Your task to perform on an android device: turn off priority inbox in the gmail app Image 0: 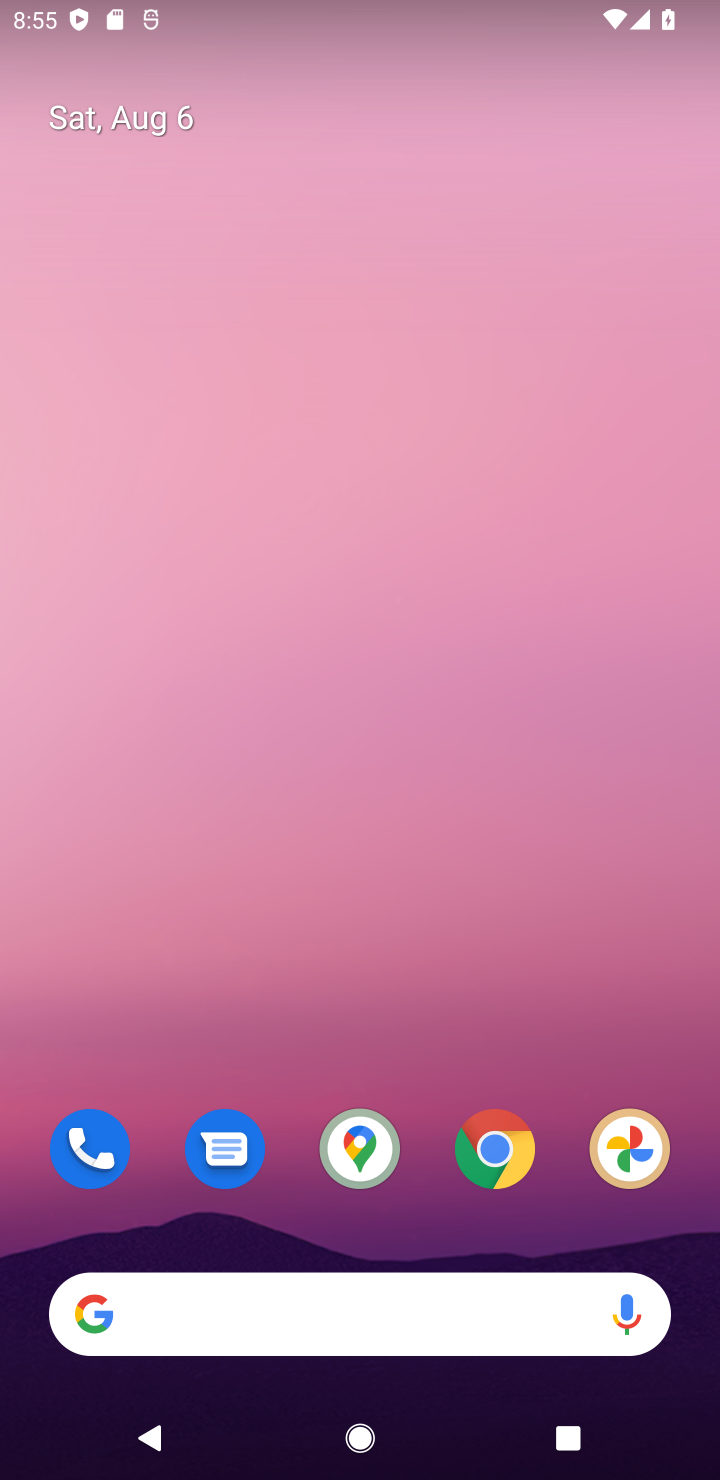
Step 0: drag from (378, 1302) to (263, 78)
Your task to perform on an android device: turn off priority inbox in the gmail app Image 1: 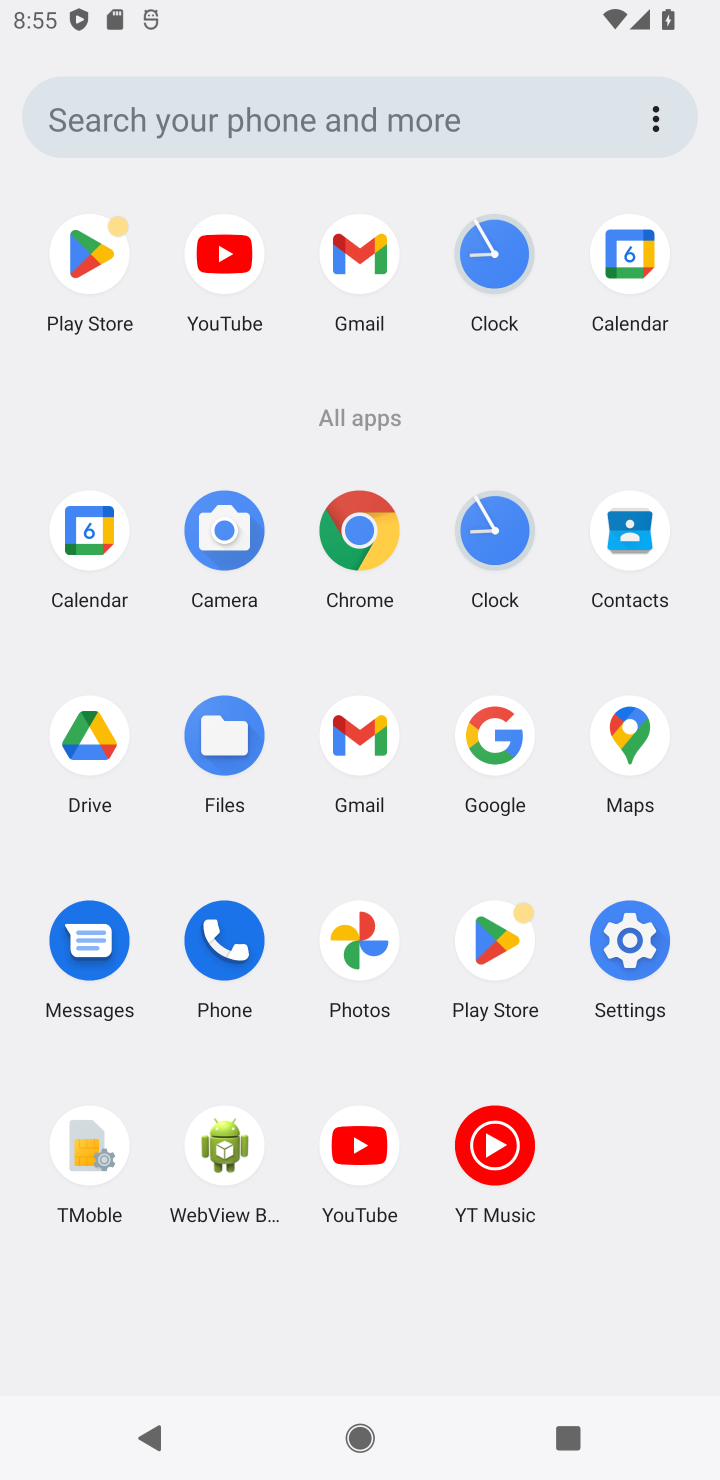
Step 1: click (369, 761)
Your task to perform on an android device: turn off priority inbox in the gmail app Image 2: 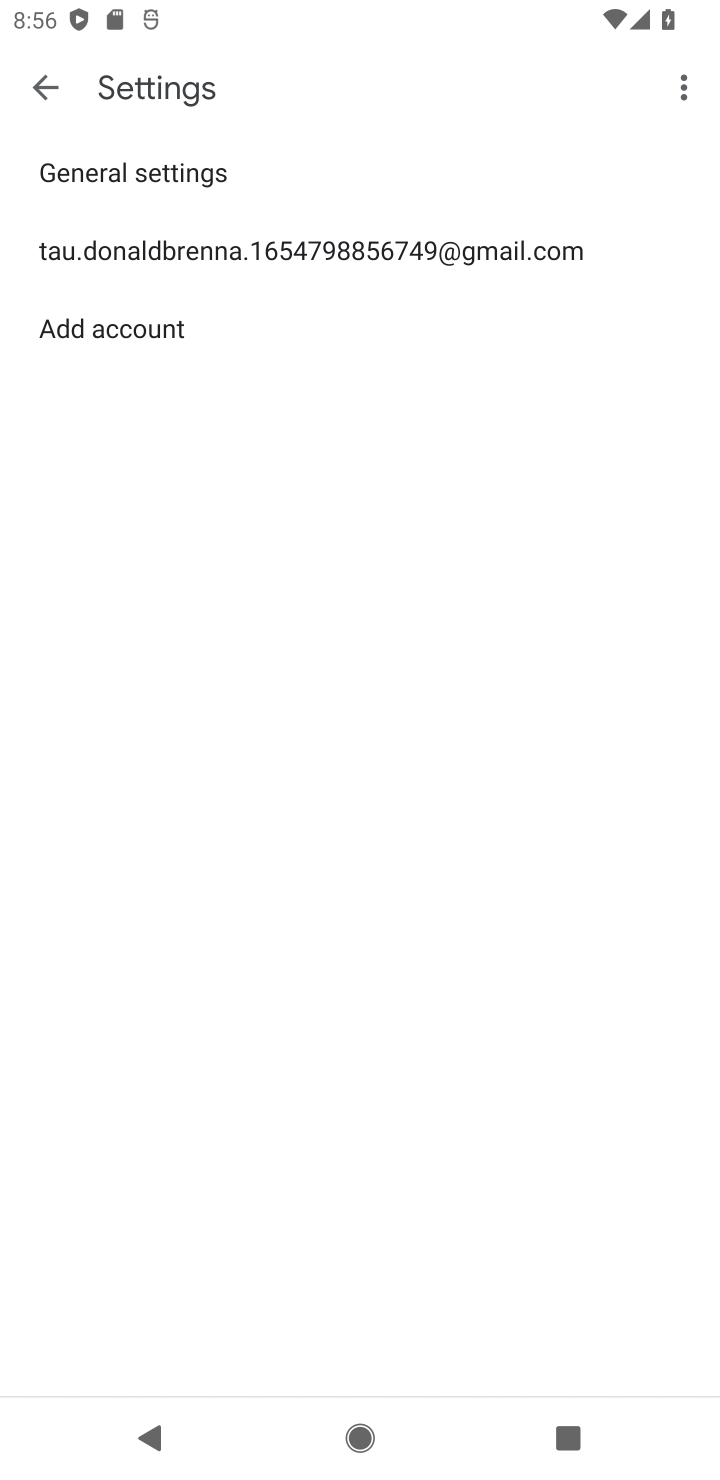
Step 2: click (418, 245)
Your task to perform on an android device: turn off priority inbox in the gmail app Image 3: 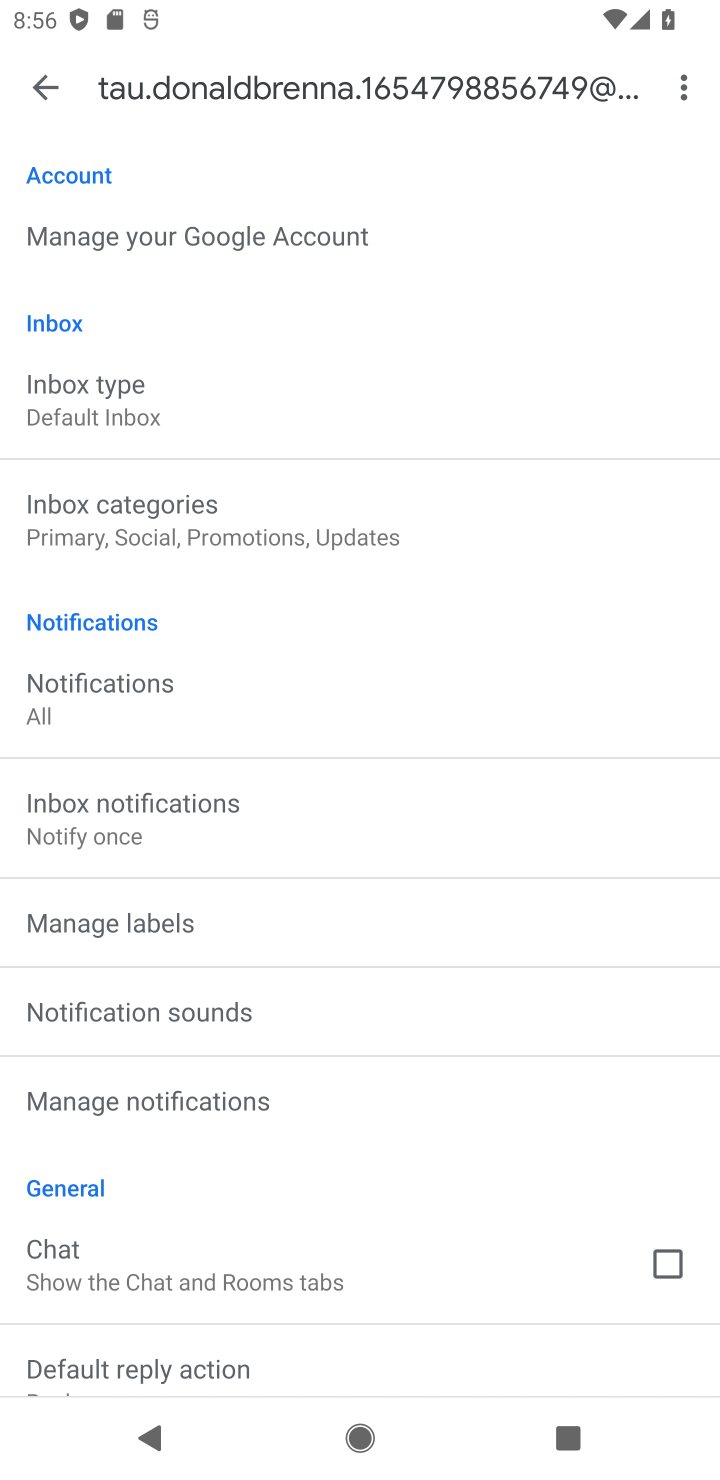
Step 3: click (151, 418)
Your task to perform on an android device: turn off priority inbox in the gmail app Image 4: 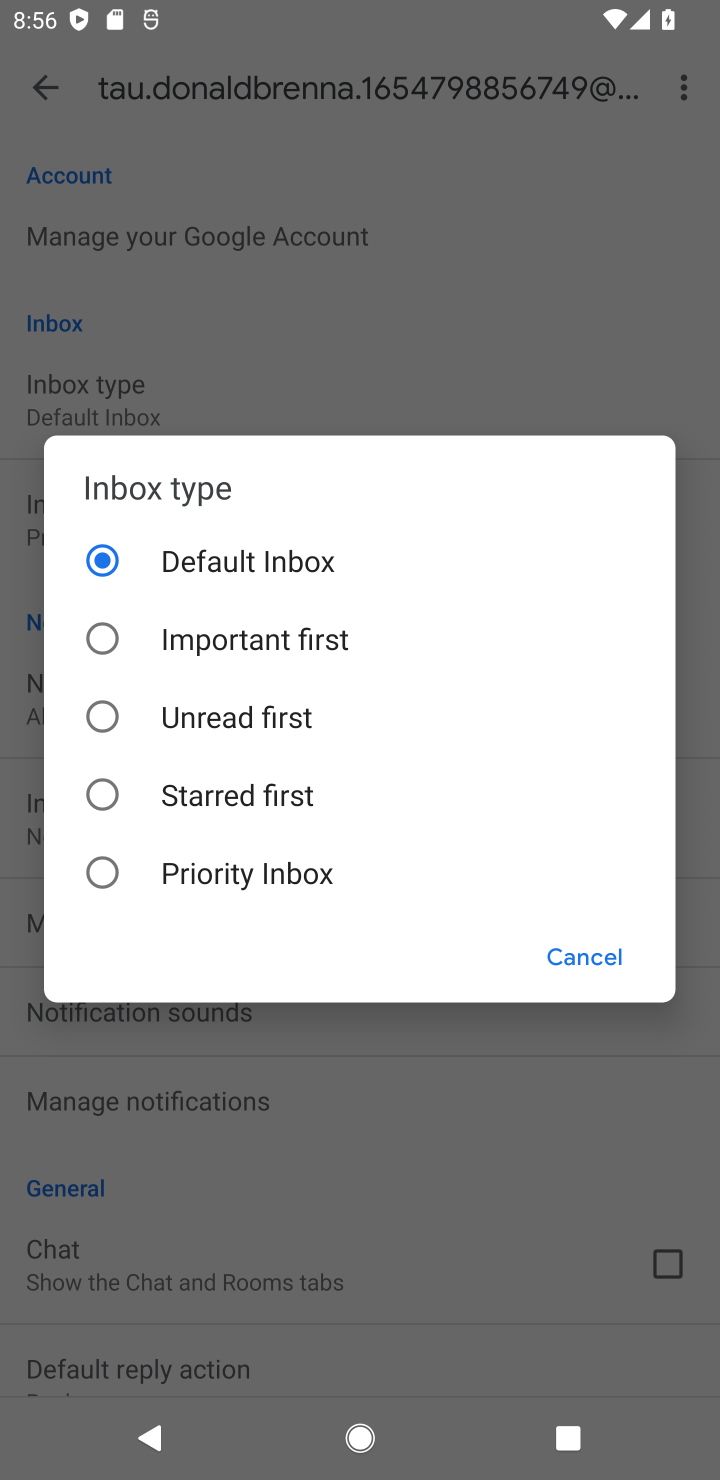
Step 4: click (238, 551)
Your task to perform on an android device: turn off priority inbox in the gmail app Image 5: 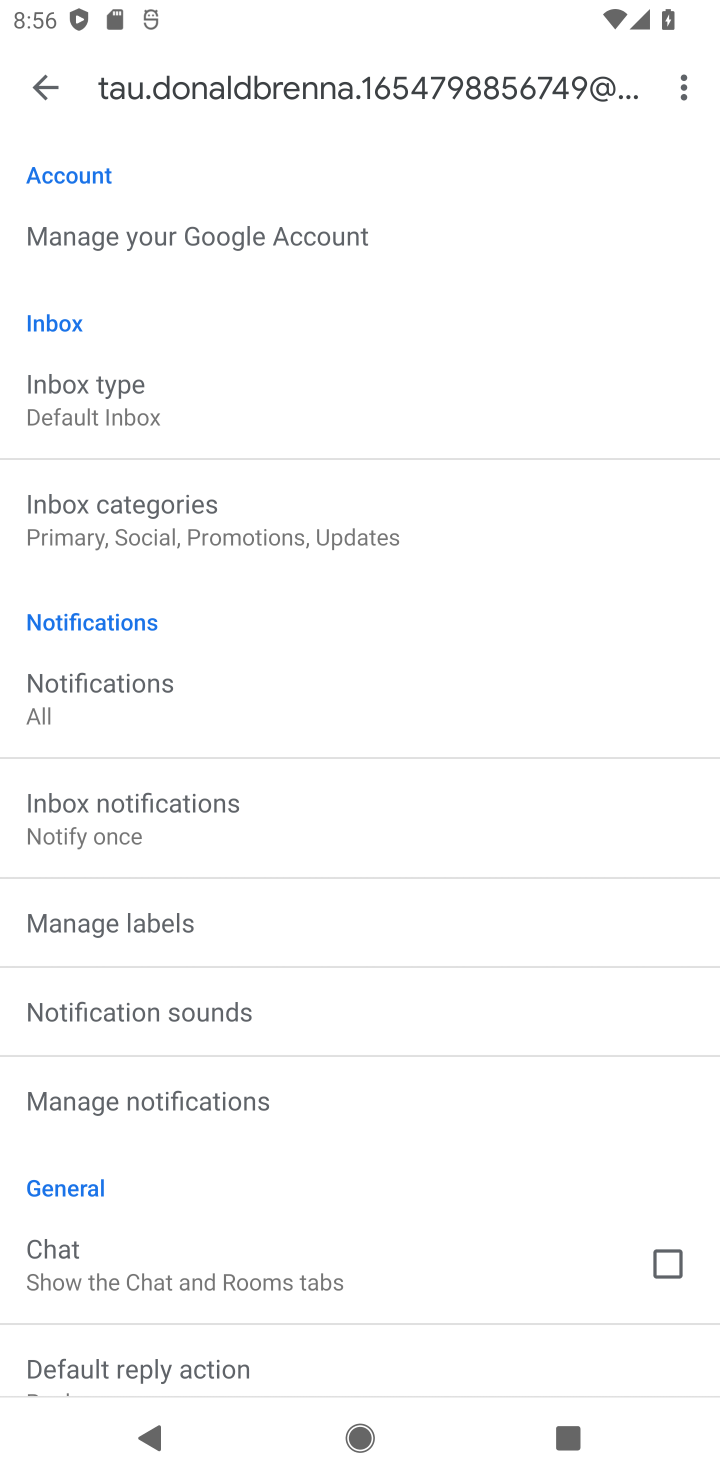
Step 5: task complete